Your task to perform on an android device: Open Wikipedia Image 0: 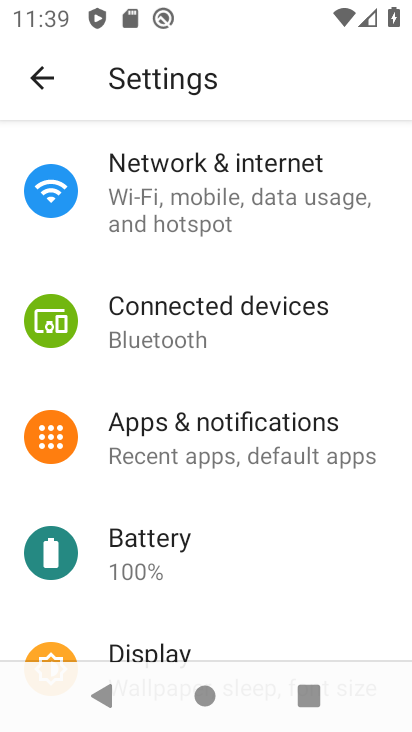
Step 0: press home button
Your task to perform on an android device: Open Wikipedia Image 1: 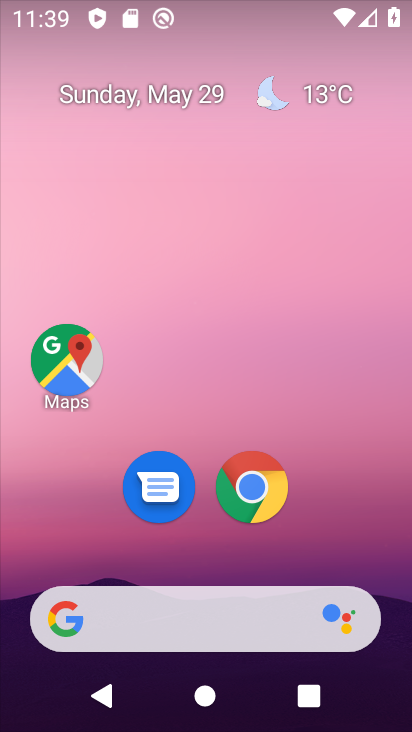
Step 1: click (268, 476)
Your task to perform on an android device: Open Wikipedia Image 2: 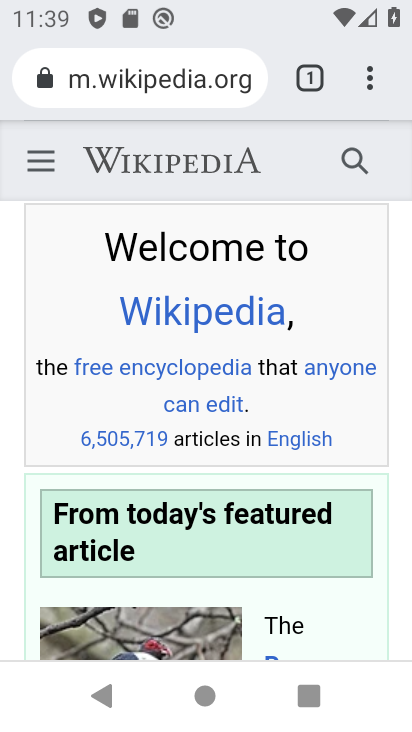
Step 2: task complete